Your task to perform on an android device: What's the weather today? Image 0: 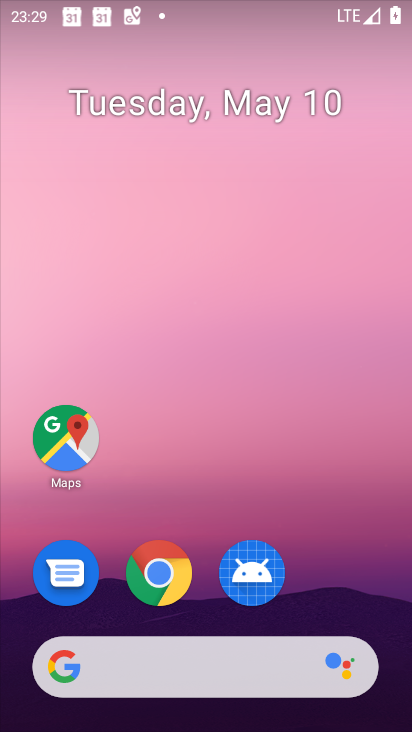
Step 0: click (209, 656)
Your task to perform on an android device: What's the weather today? Image 1: 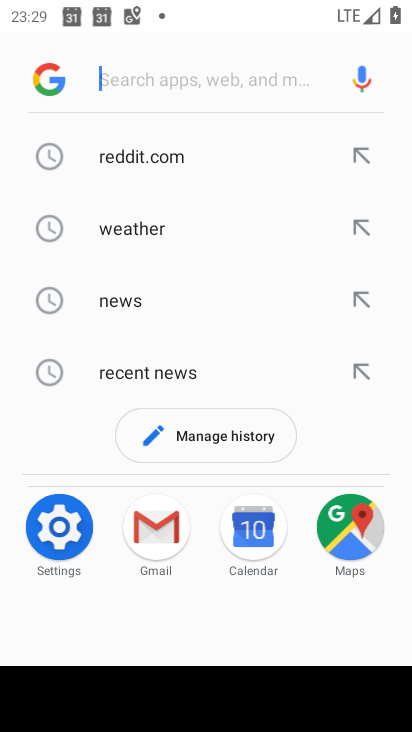
Step 1: click (129, 218)
Your task to perform on an android device: What's the weather today? Image 2: 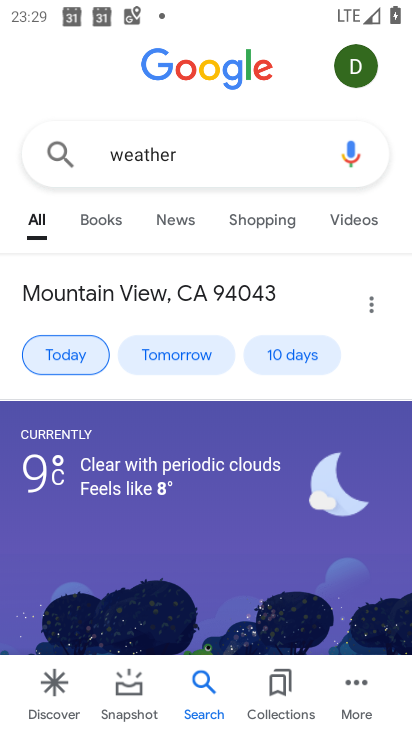
Step 2: task complete